Your task to perform on an android device: Add "corsair k70" to the cart on costco Image 0: 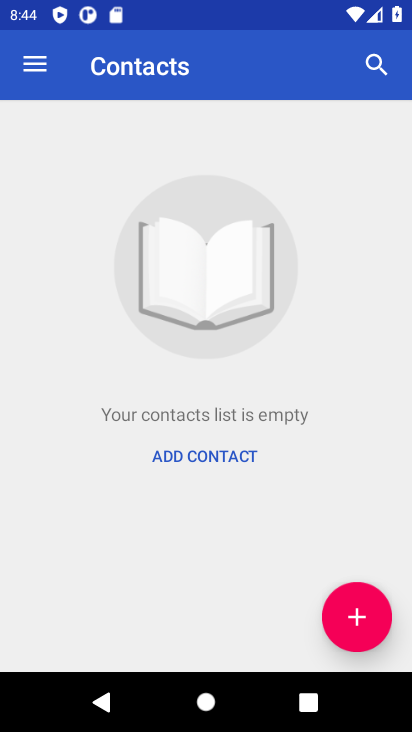
Step 0: press home button
Your task to perform on an android device: Add "corsair k70" to the cart on costco Image 1: 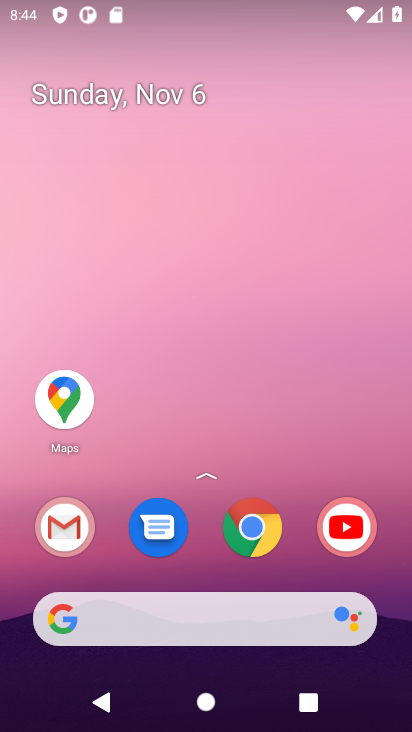
Step 1: click (244, 521)
Your task to perform on an android device: Add "corsair k70" to the cart on costco Image 2: 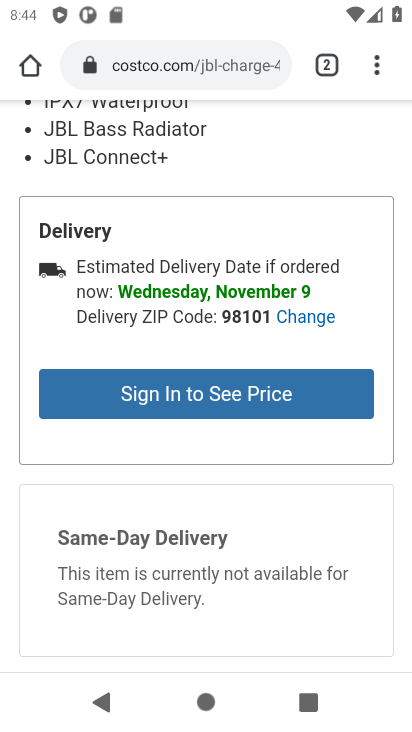
Step 2: click (319, 63)
Your task to perform on an android device: Add "corsair k70" to the cart on costco Image 3: 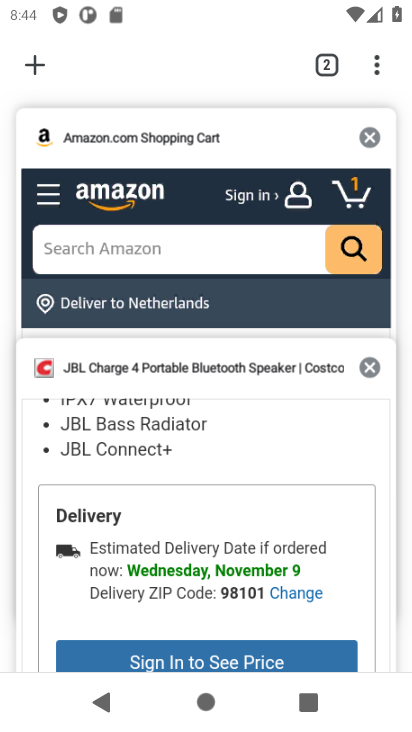
Step 3: click (31, 71)
Your task to perform on an android device: Add "corsair k70" to the cart on costco Image 4: 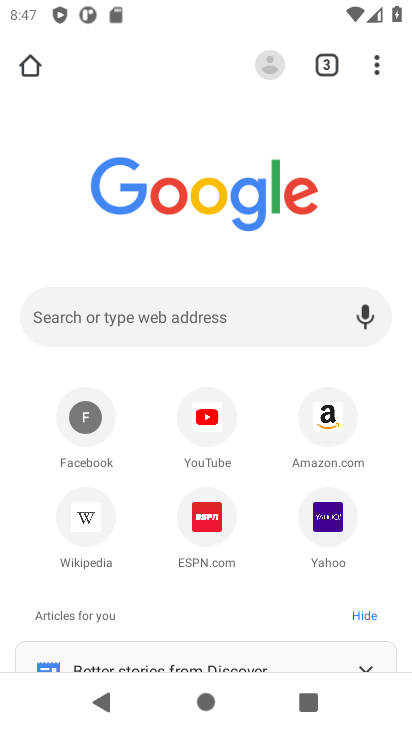
Step 4: click (207, 323)
Your task to perform on an android device: Add "corsair k70" to the cart on costco Image 5: 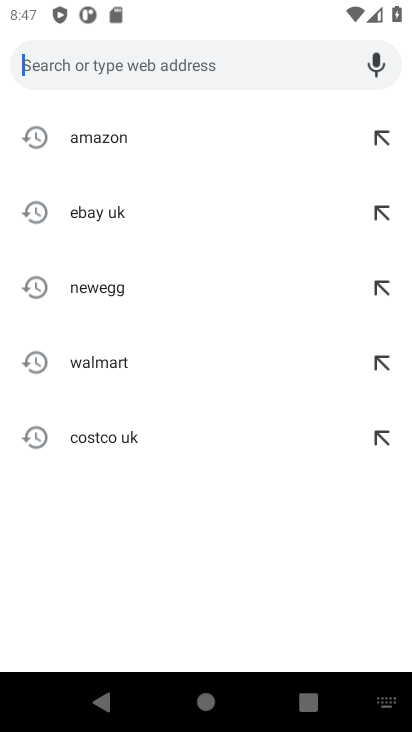
Step 5: type "costco"
Your task to perform on an android device: Add "corsair k70" to the cart on costco Image 6: 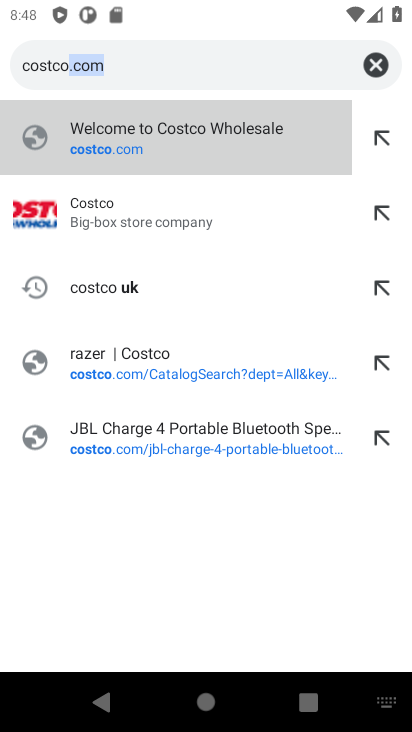
Step 6: click (134, 217)
Your task to perform on an android device: Add "corsair k70" to the cart on costco Image 7: 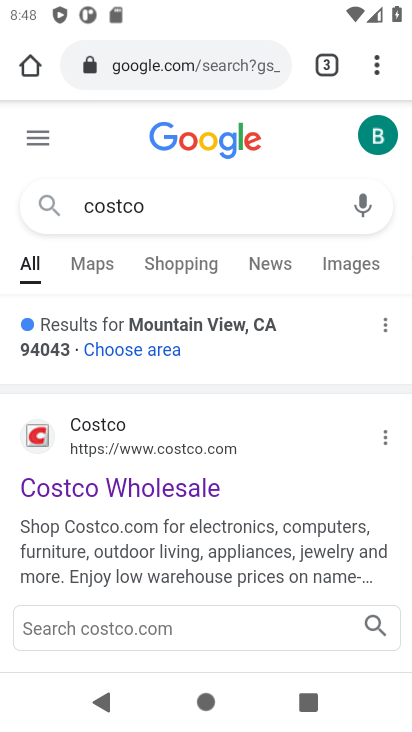
Step 7: click (129, 475)
Your task to perform on an android device: Add "corsair k70" to the cart on costco Image 8: 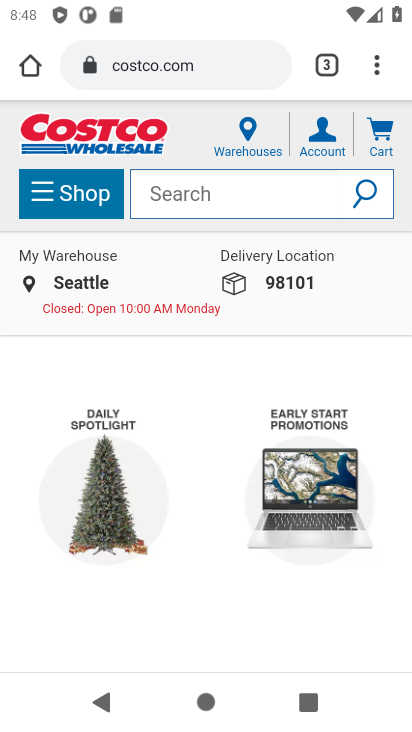
Step 8: click (212, 199)
Your task to perform on an android device: Add "corsair k70" to the cart on costco Image 9: 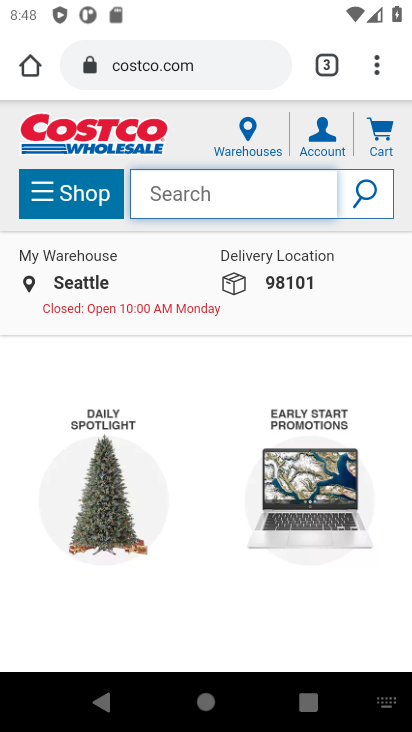
Step 9: click (187, 182)
Your task to perform on an android device: Add "corsair k70" to the cart on costco Image 10: 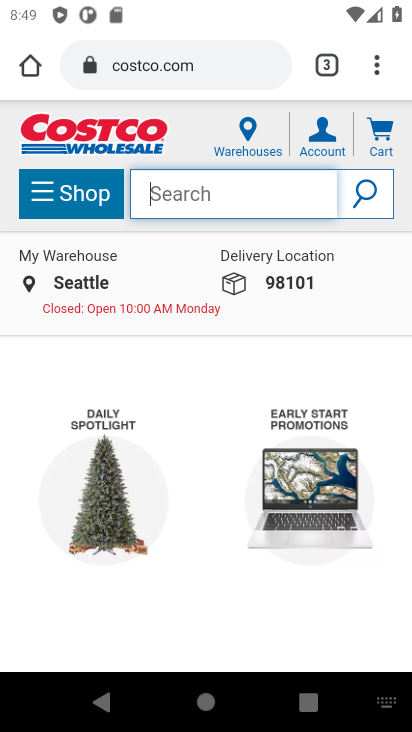
Step 10: type "corsair k70"
Your task to perform on an android device: Add "corsair k70" to the cart on costco Image 11: 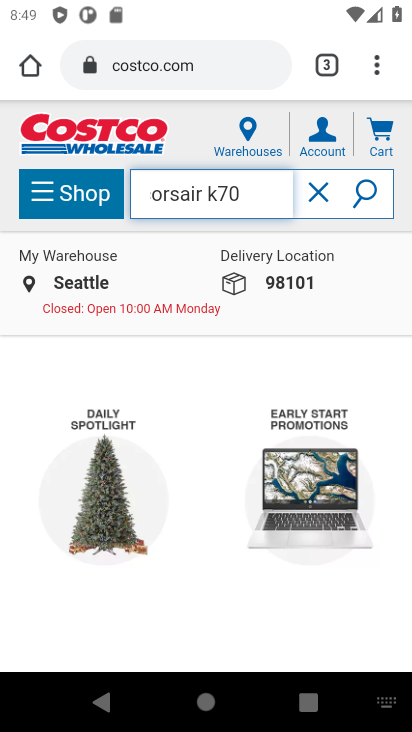
Step 11: task complete